Your task to perform on an android device: find snoozed emails in the gmail app Image 0: 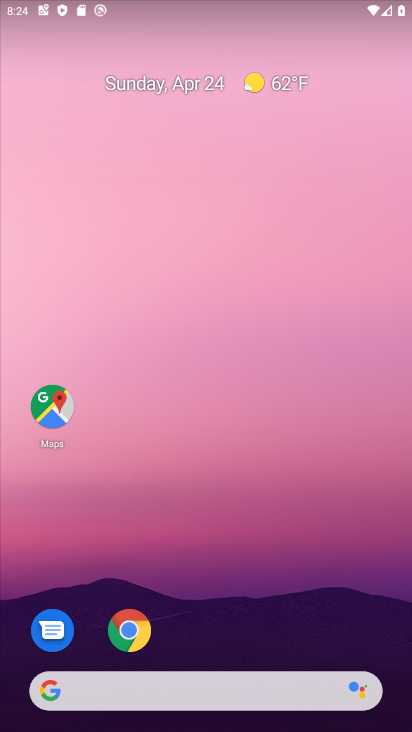
Step 0: drag from (291, 572) to (184, 26)
Your task to perform on an android device: find snoozed emails in the gmail app Image 1: 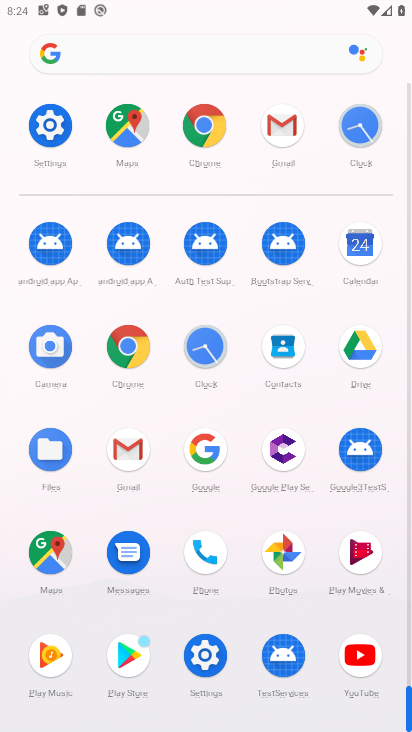
Step 1: drag from (7, 479) to (11, 265)
Your task to perform on an android device: find snoozed emails in the gmail app Image 2: 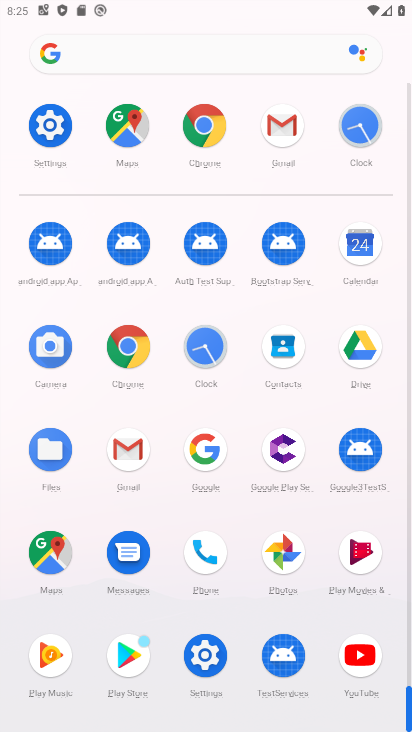
Step 2: click (129, 446)
Your task to perform on an android device: find snoozed emails in the gmail app Image 3: 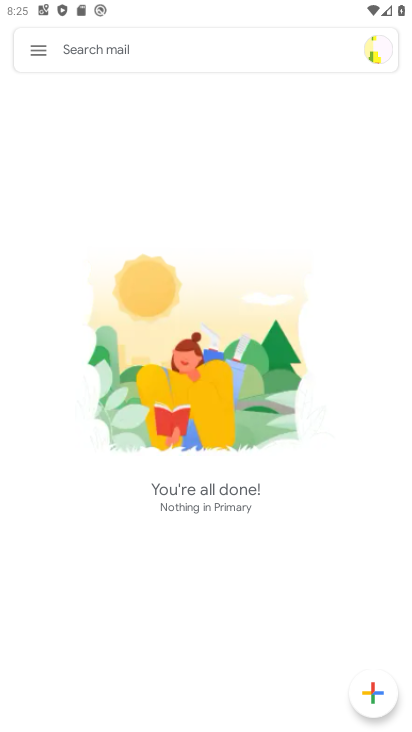
Step 3: click (31, 48)
Your task to perform on an android device: find snoozed emails in the gmail app Image 4: 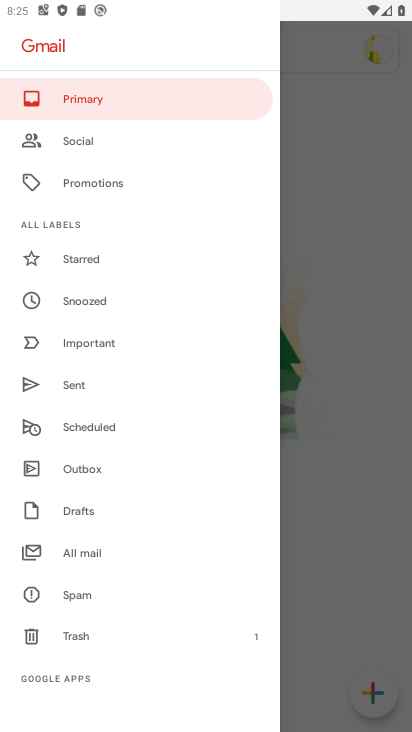
Step 4: drag from (155, 566) to (183, 90)
Your task to perform on an android device: find snoozed emails in the gmail app Image 5: 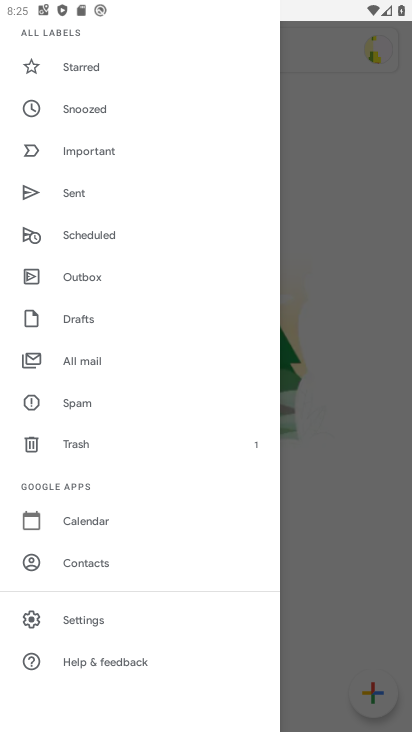
Step 5: click (89, 618)
Your task to perform on an android device: find snoozed emails in the gmail app Image 6: 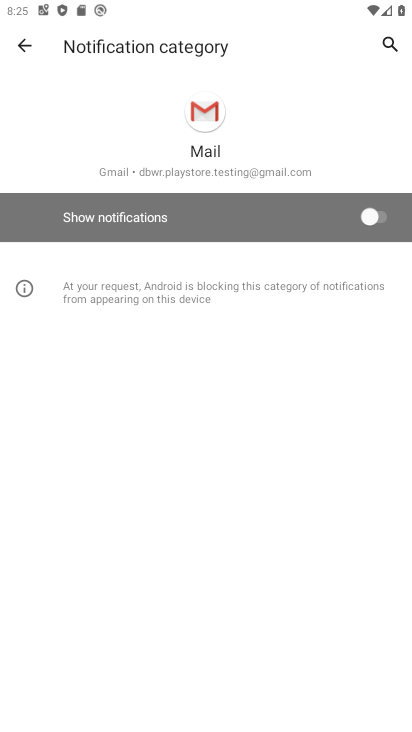
Step 6: click (18, 51)
Your task to perform on an android device: find snoozed emails in the gmail app Image 7: 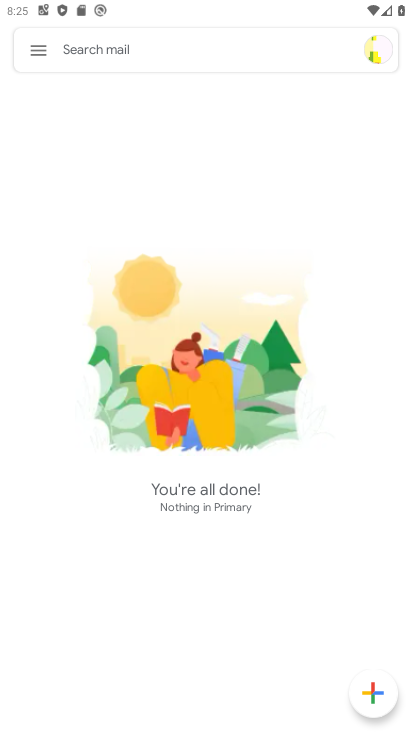
Step 7: click (41, 56)
Your task to perform on an android device: find snoozed emails in the gmail app Image 8: 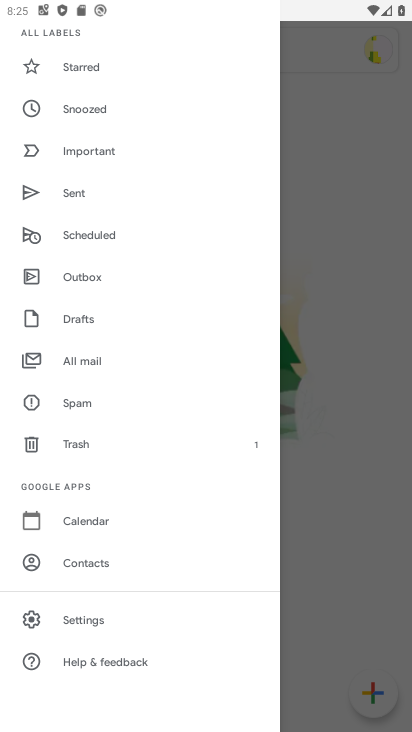
Step 8: click (109, 111)
Your task to perform on an android device: find snoozed emails in the gmail app Image 9: 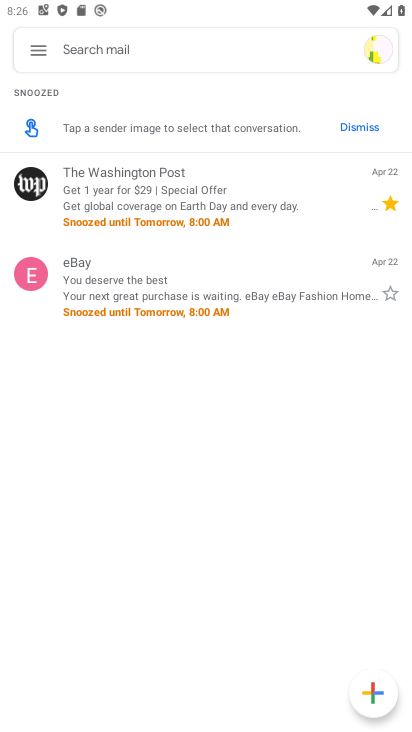
Step 9: task complete